Your task to perform on an android device: toggle show notifications on the lock screen Image 0: 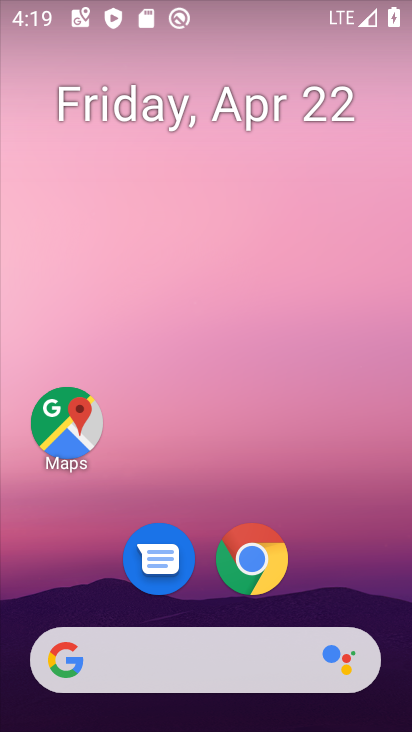
Step 0: drag from (212, 502) to (229, 9)
Your task to perform on an android device: toggle show notifications on the lock screen Image 1: 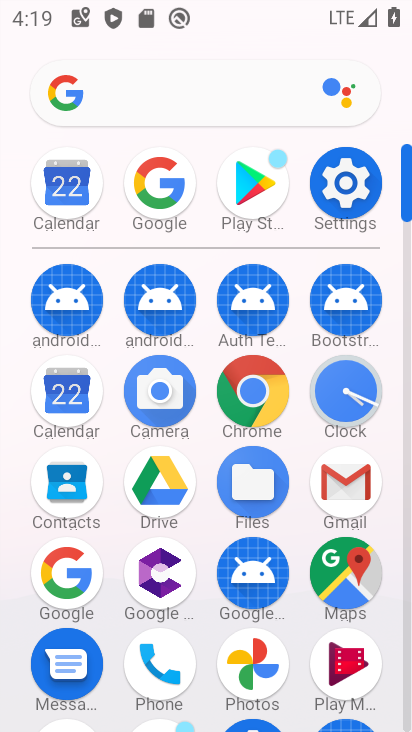
Step 1: click (342, 274)
Your task to perform on an android device: toggle show notifications on the lock screen Image 2: 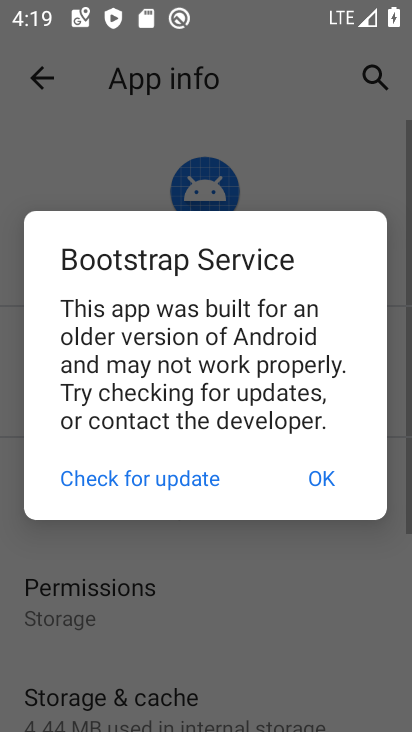
Step 2: click (323, 474)
Your task to perform on an android device: toggle show notifications on the lock screen Image 3: 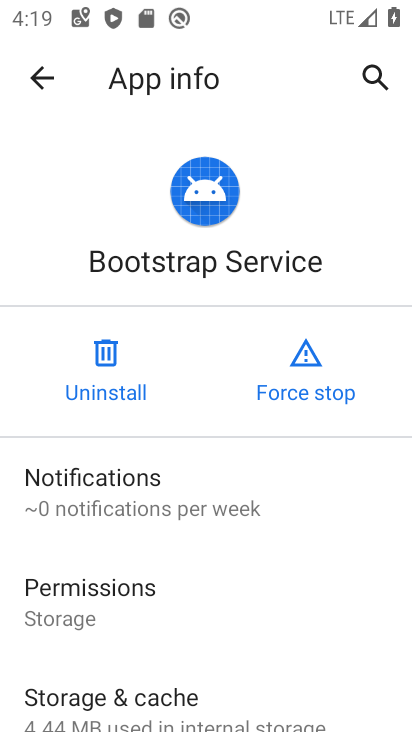
Step 3: click (38, 86)
Your task to perform on an android device: toggle show notifications on the lock screen Image 4: 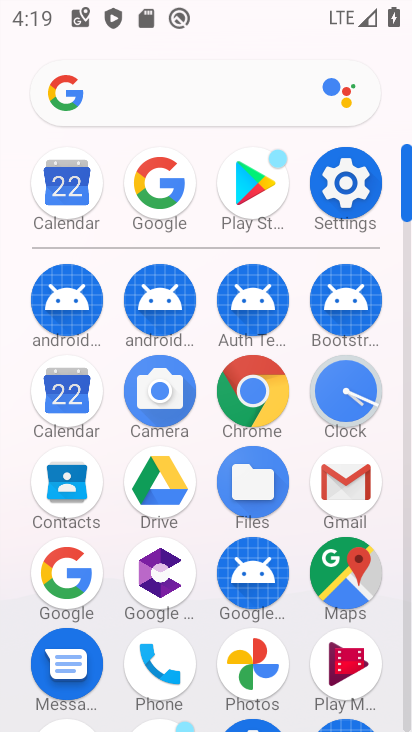
Step 4: click (342, 199)
Your task to perform on an android device: toggle show notifications on the lock screen Image 5: 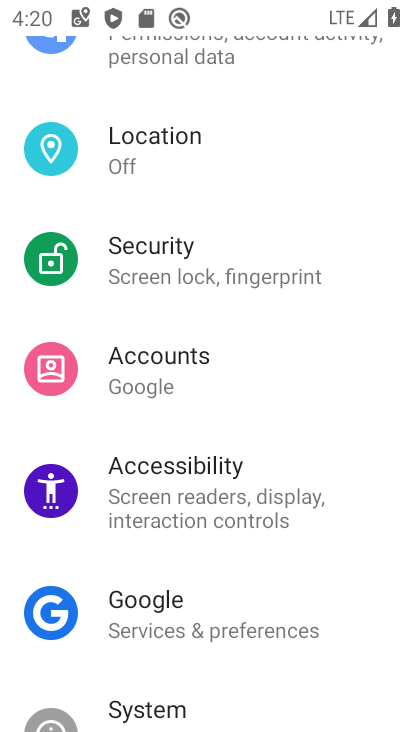
Step 5: drag from (298, 106) to (239, 624)
Your task to perform on an android device: toggle show notifications on the lock screen Image 6: 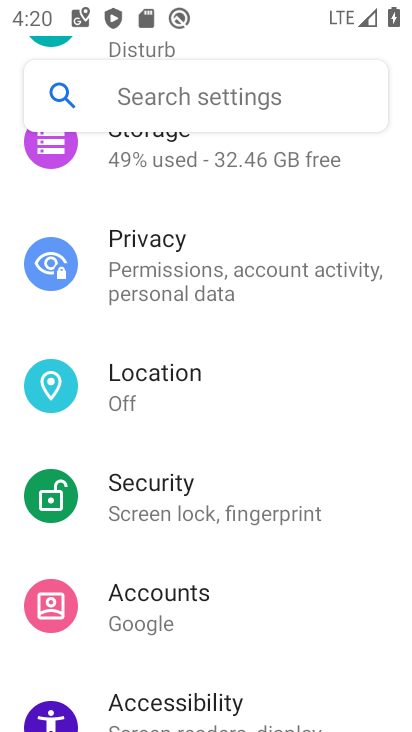
Step 6: drag from (252, 215) to (208, 723)
Your task to perform on an android device: toggle show notifications on the lock screen Image 7: 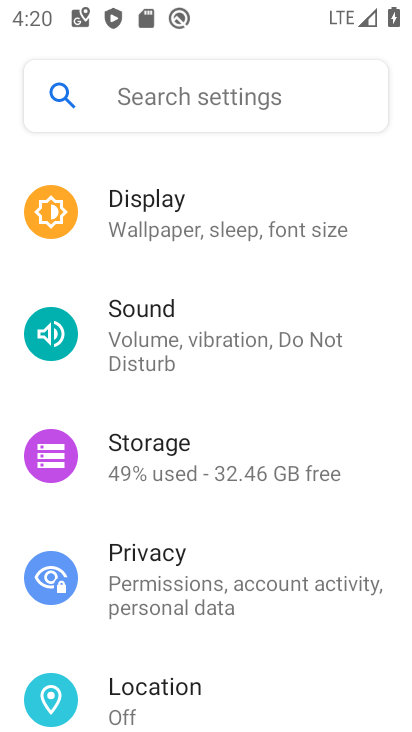
Step 7: drag from (265, 271) to (184, 712)
Your task to perform on an android device: toggle show notifications on the lock screen Image 8: 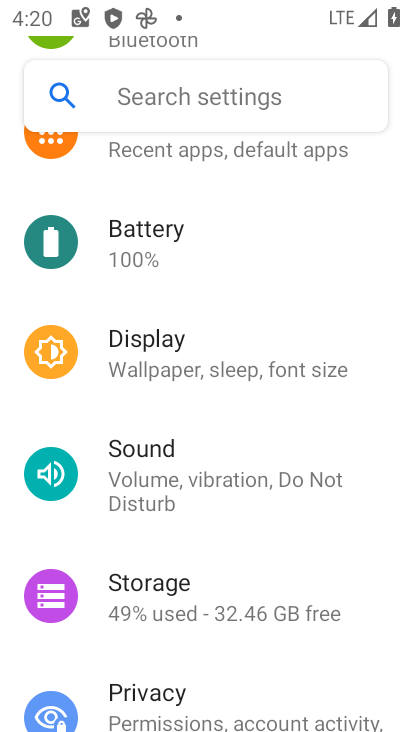
Step 8: drag from (274, 246) to (208, 699)
Your task to perform on an android device: toggle show notifications on the lock screen Image 9: 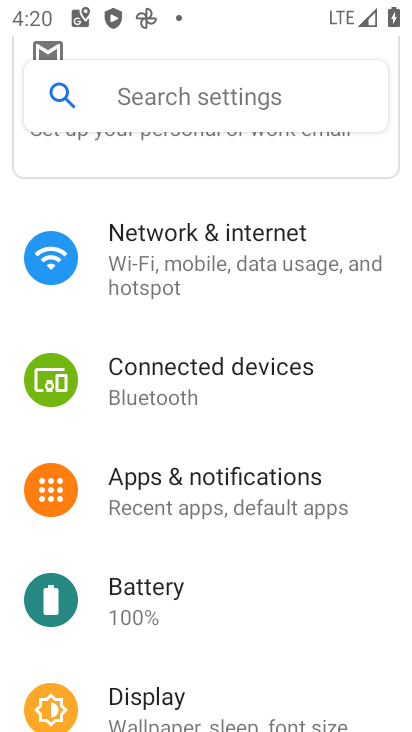
Step 9: click (209, 492)
Your task to perform on an android device: toggle show notifications on the lock screen Image 10: 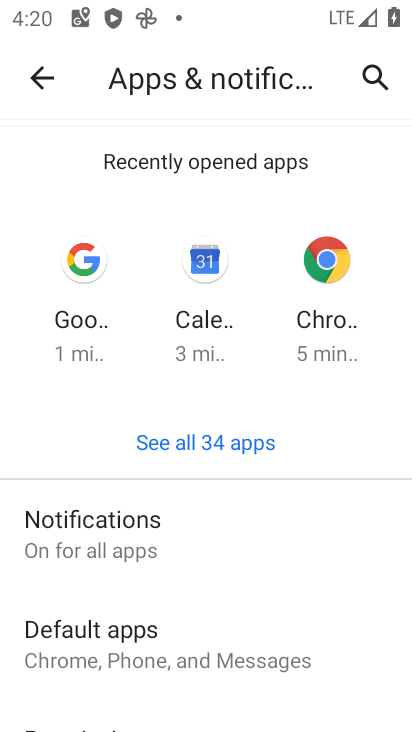
Step 10: click (162, 534)
Your task to perform on an android device: toggle show notifications on the lock screen Image 11: 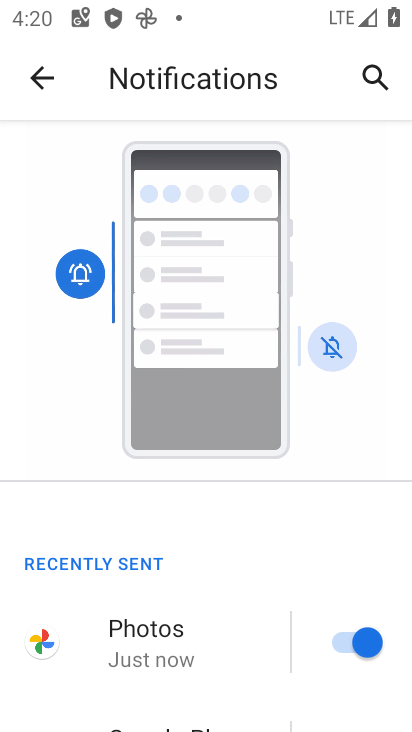
Step 11: drag from (229, 638) to (213, 237)
Your task to perform on an android device: toggle show notifications on the lock screen Image 12: 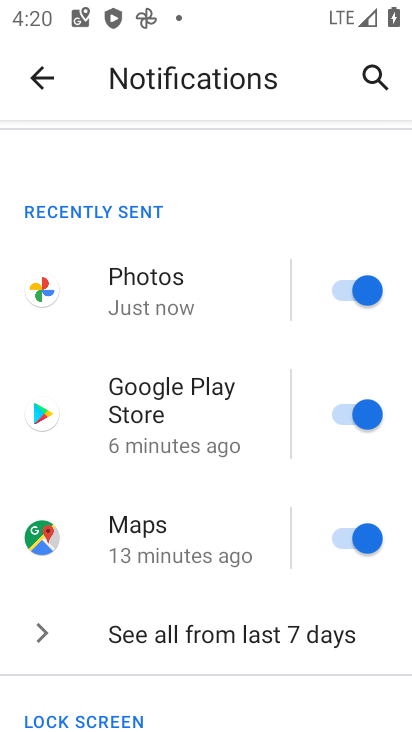
Step 12: drag from (186, 602) to (187, 326)
Your task to perform on an android device: toggle show notifications on the lock screen Image 13: 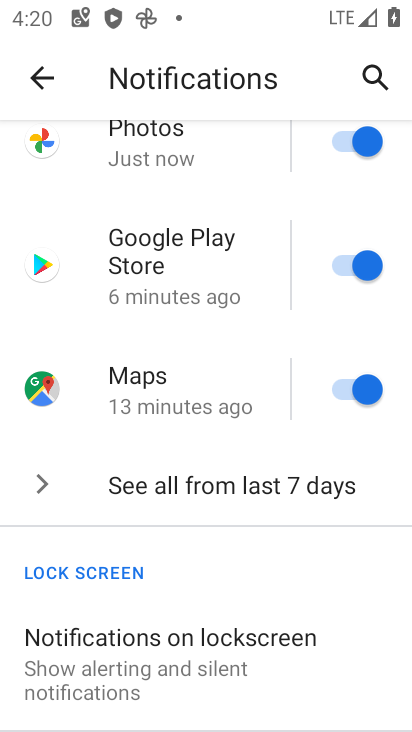
Step 13: click (170, 647)
Your task to perform on an android device: toggle show notifications on the lock screen Image 14: 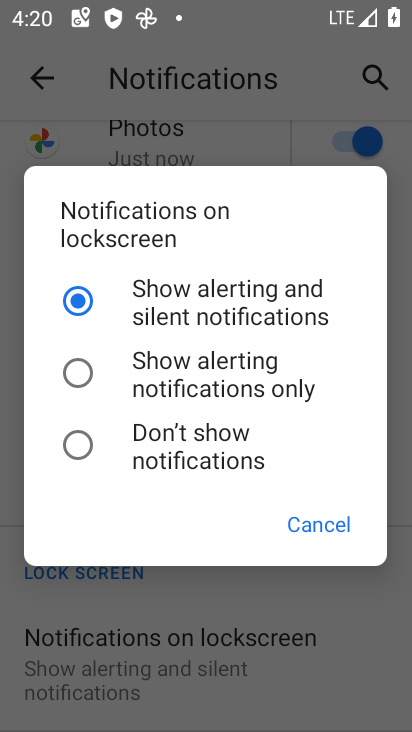
Step 14: click (189, 450)
Your task to perform on an android device: toggle show notifications on the lock screen Image 15: 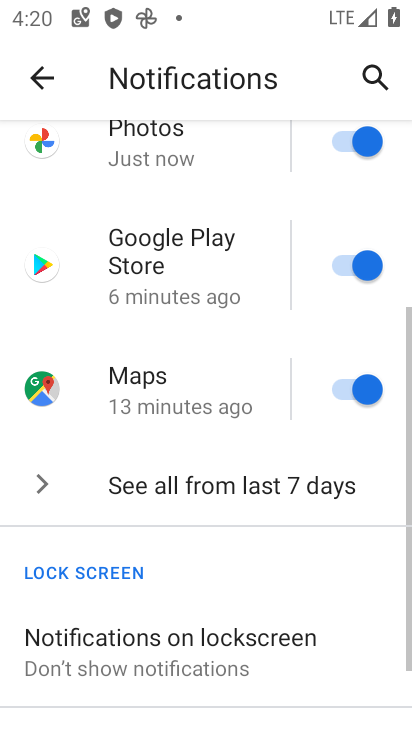
Step 15: task complete